Your task to perform on an android device: Open accessibility settings Image 0: 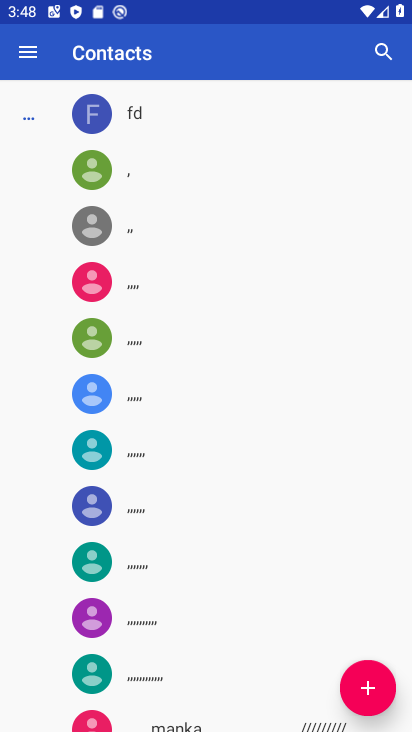
Step 0: press home button
Your task to perform on an android device: Open accessibility settings Image 1: 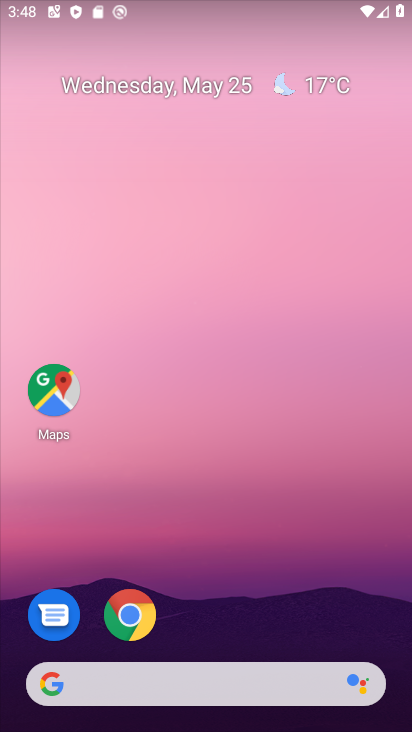
Step 1: drag from (358, 616) to (340, 83)
Your task to perform on an android device: Open accessibility settings Image 2: 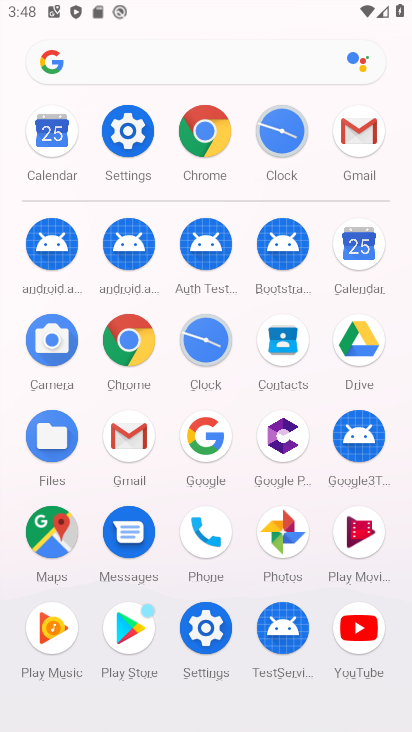
Step 2: click (216, 630)
Your task to perform on an android device: Open accessibility settings Image 3: 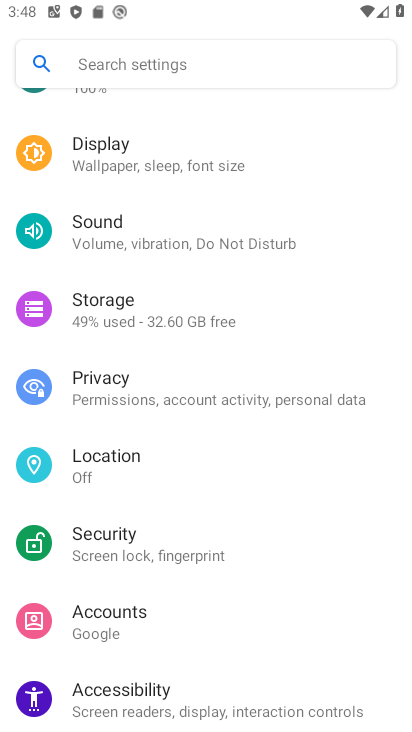
Step 3: drag from (279, 597) to (256, 169)
Your task to perform on an android device: Open accessibility settings Image 4: 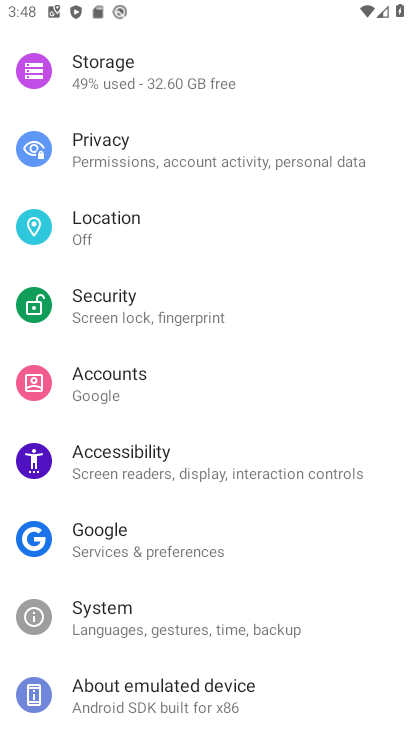
Step 4: click (151, 450)
Your task to perform on an android device: Open accessibility settings Image 5: 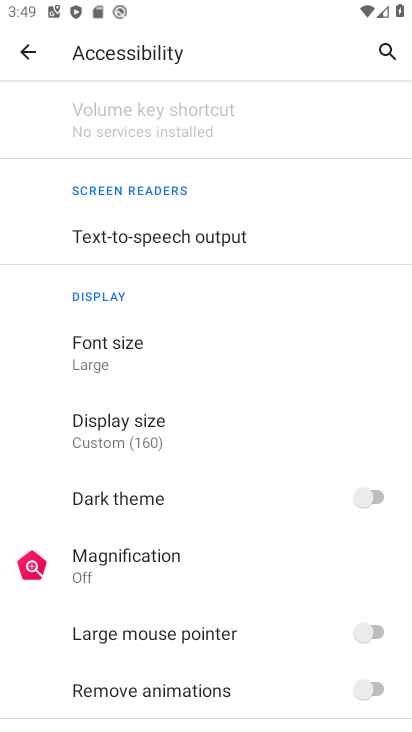
Step 5: task complete